Your task to perform on an android device: Go to Android settings Image 0: 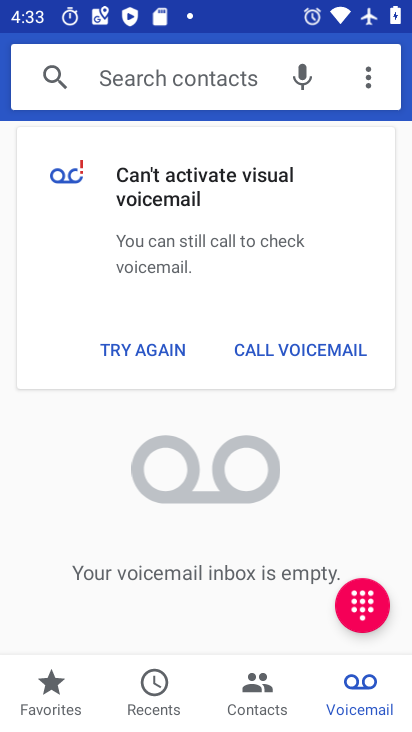
Step 0: press home button
Your task to perform on an android device: Go to Android settings Image 1: 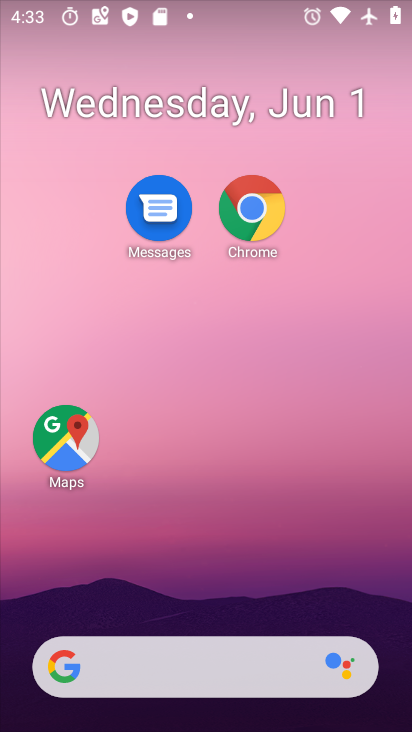
Step 1: drag from (205, 624) to (222, 155)
Your task to perform on an android device: Go to Android settings Image 2: 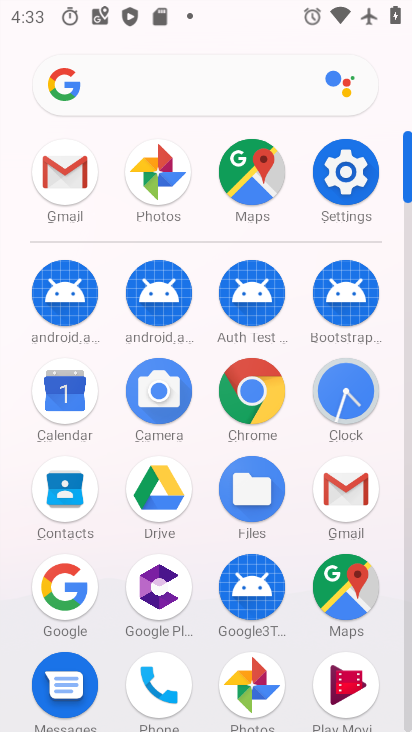
Step 2: click (318, 171)
Your task to perform on an android device: Go to Android settings Image 3: 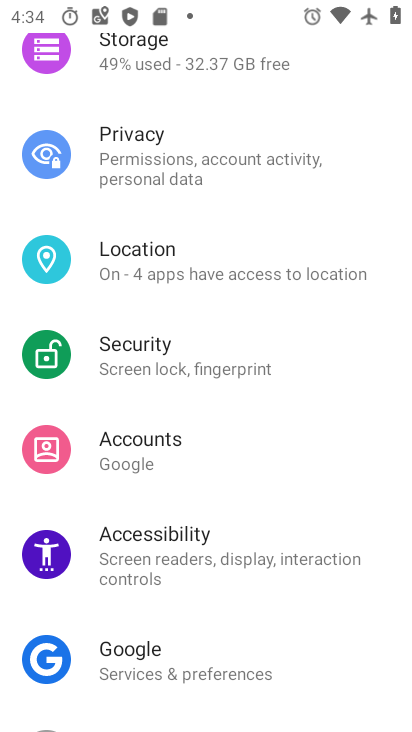
Step 3: task complete